Your task to perform on an android device: Open calendar and show me the second week of next month Image 0: 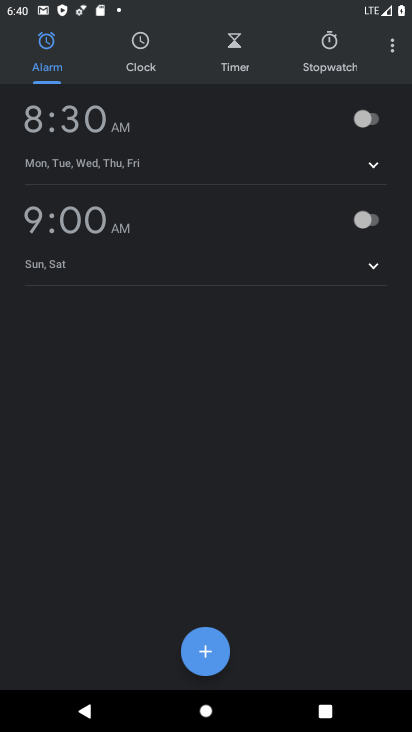
Step 0: press home button
Your task to perform on an android device: Open calendar and show me the second week of next month Image 1: 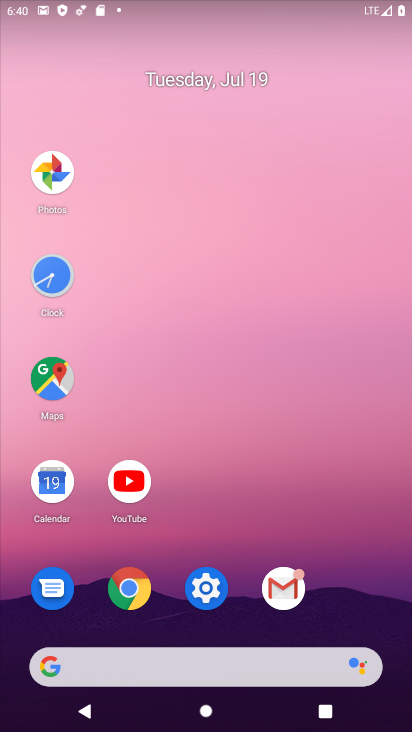
Step 1: click (53, 479)
Your task to perform on an android device: Open calendar and show me the second week of next month Image 2: 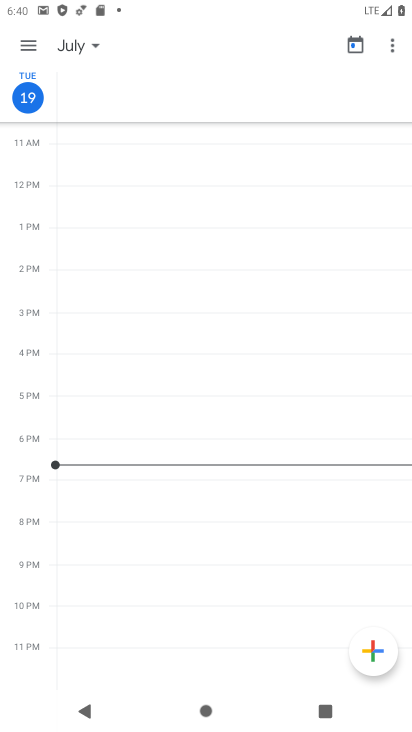
Step 2: click (29, 44)
Your task to perform on an android device: Open calendar and show me the second week of next month Image 3: 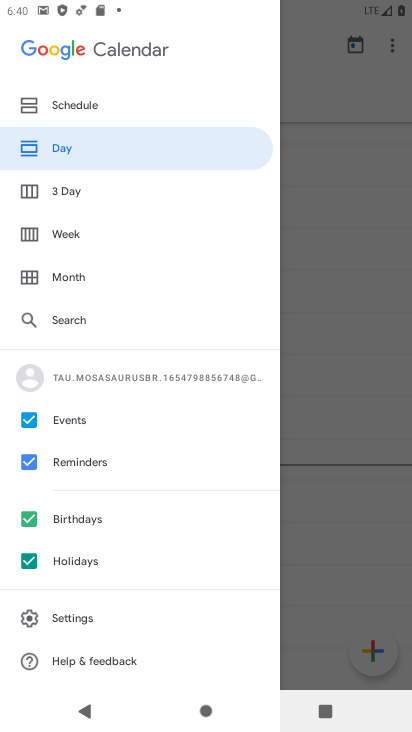
Step 3: click (67, 235)
Your task to perform on an android device: Open calendar and show me the second week of next month Image 4: 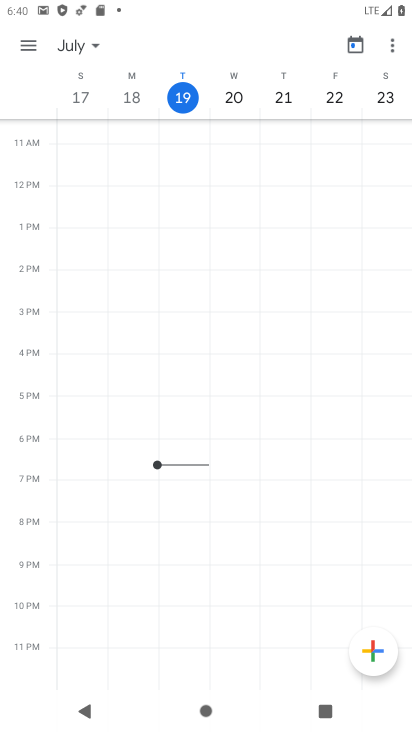
Step 4: click (93, 40)
Your task to perform on an android device: Open calendar and show me the second week of next month Image 5: 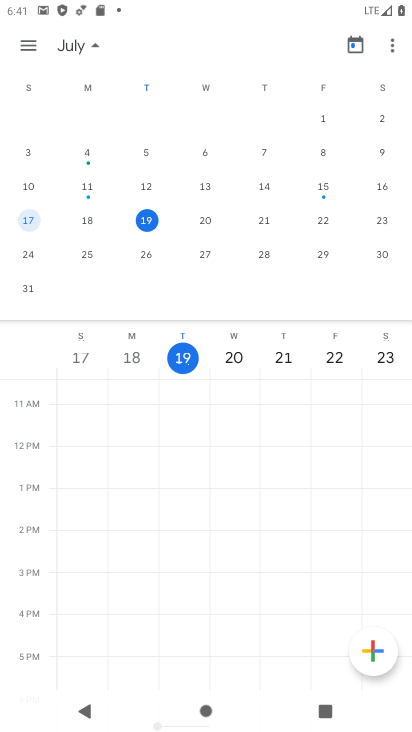
Step 5: drag from (350, 176) to (14, 161)
Your task to perform on an android device: Open calendar and show me the second week of next month Image 6: 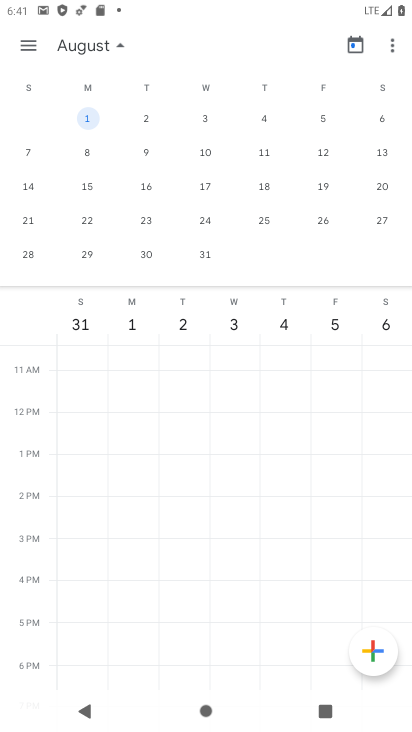
Step 6: click (90, 148)
Your task to perform on an android device: Open calendar and show me the second week of next month Image 7: 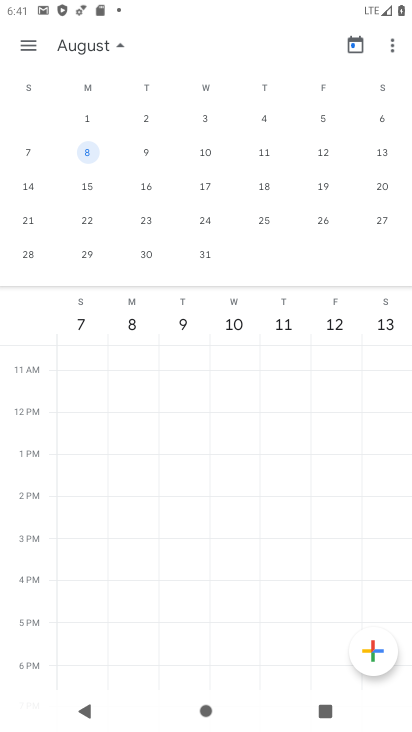
Step 7: task complete